Your task to perform on an android device: turn off location history Image 0: 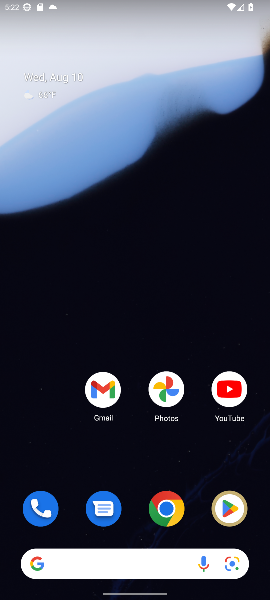
Step 0: press home button
Your task to perform on an android device: turn off location history Image 1: 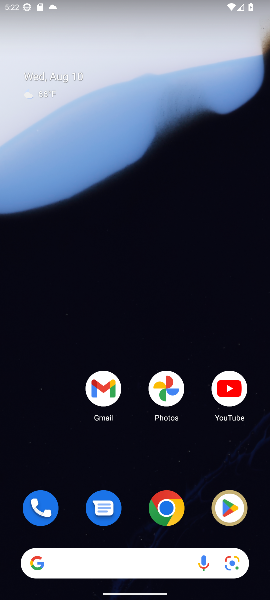
Step 1: drag from (68, 468) to (79, 37)
Your task to perform on an android device: turn off location history Image 2: 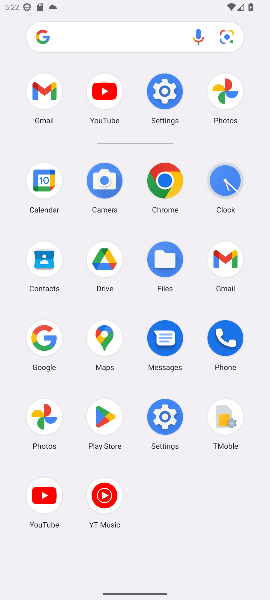
Step 2: click (167, 87)
Your task to perform on an android device: turn off location history Image 3: 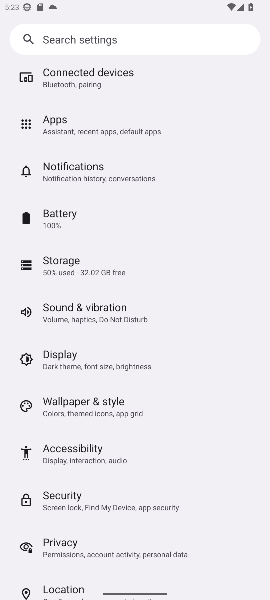
Step 3: click (73, 588)
Your task to perform on an android device: turn off location history Image 4: 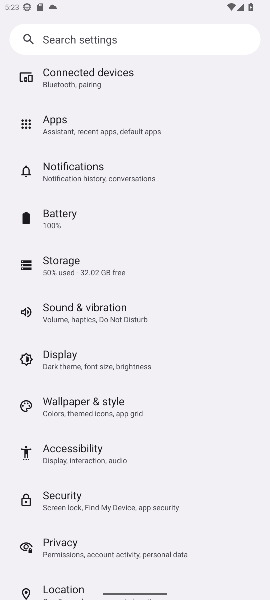
Step 4: click (72, 584)
Your task to perform on an android device: turn off location history Image 5: 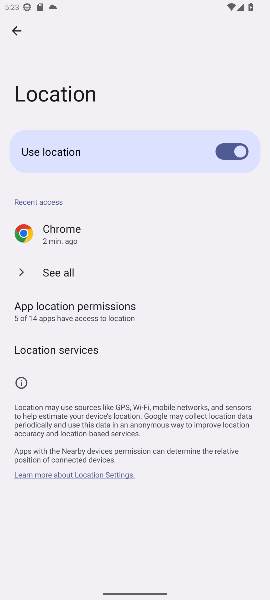
Step 5: click (24, 350)
Your task to perform on an android device: turn off location history Image 6: 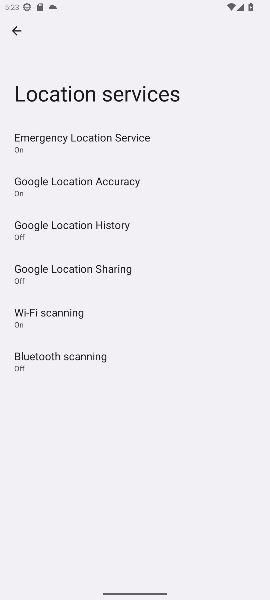
Step 6: click (67, 229)
Your task to perform on an android device: turn off location history Image 7: 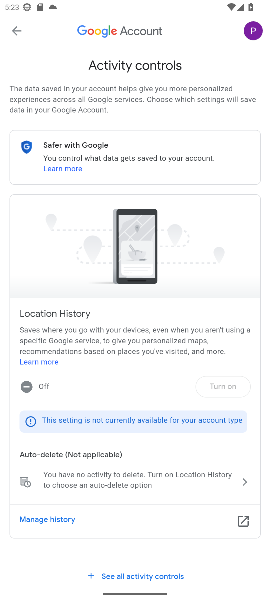
Step 7: task complete